Your task to perform on an android device: Go to privacy settings Image 0: 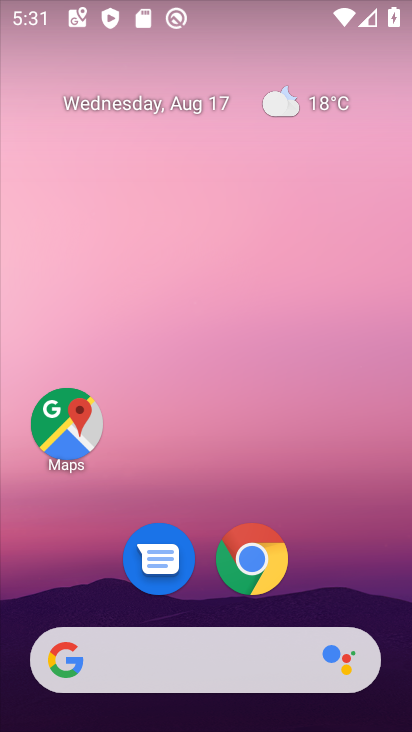
Step 0: click (177, 289)
Your task to perform on an android device: Go to privacy settings Image 1: 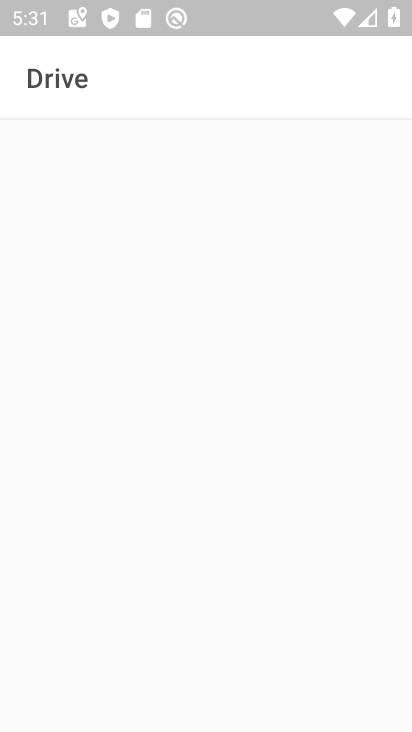
Step 1: press home button
Your task to perform on an android device: Go to privacy settings Image 2: 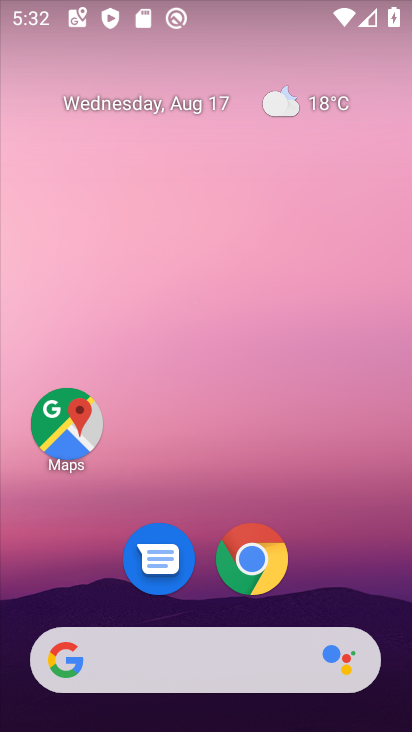
Step 2: drag from (218, 634) to (207, 58)
Your task to perform on an android device: Go to privacy settings Image 3: 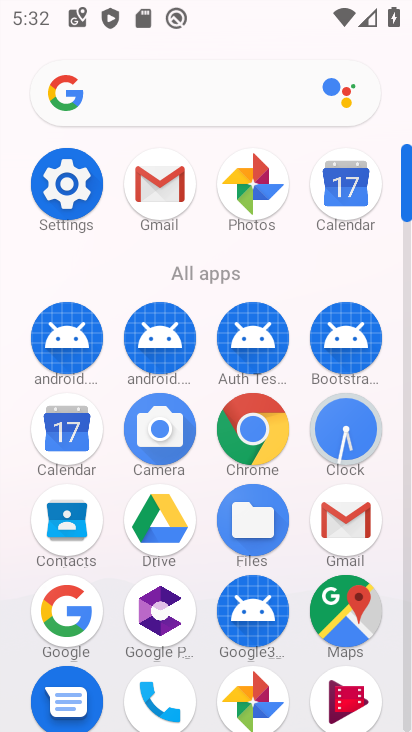
Step 3: click (83, 192)
Your task to perform on an android device: Go to privacy settings Image 4: 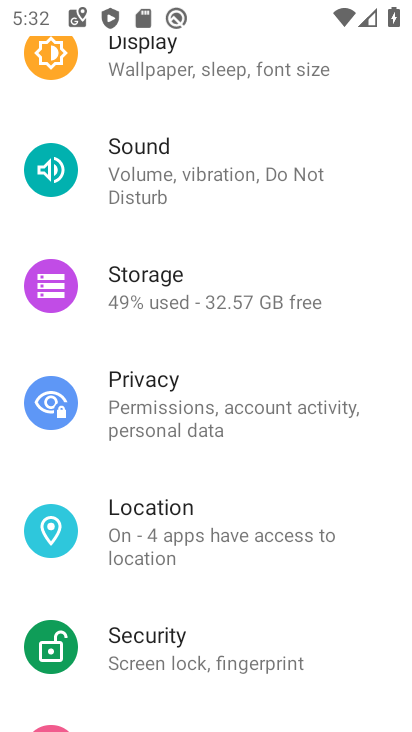
Step 4: click (151, 434)
Your task to perform on an android device: Go to privacy settings Image 5: 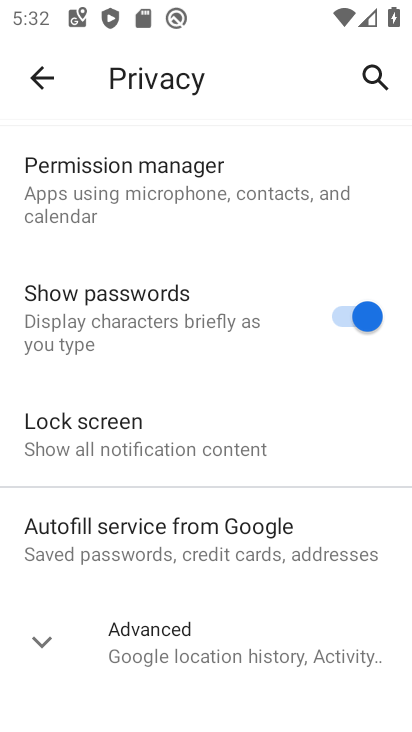
Step 5: task complete